Your task to perform on an android device: Open Android settings Image 0: 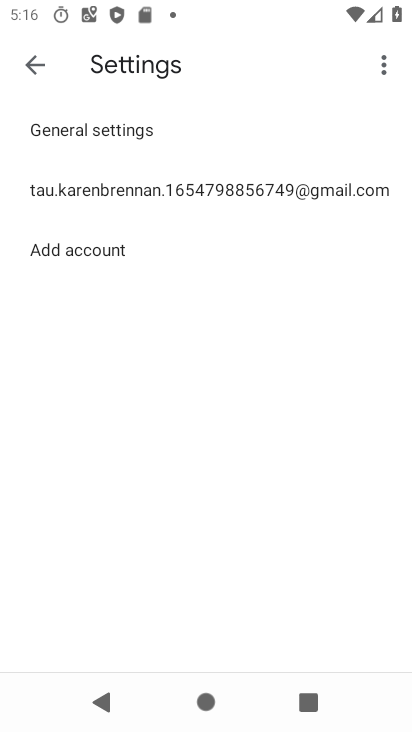
Step 0: press home button
Your task to perform on an android device: Open Android settings Image 1: 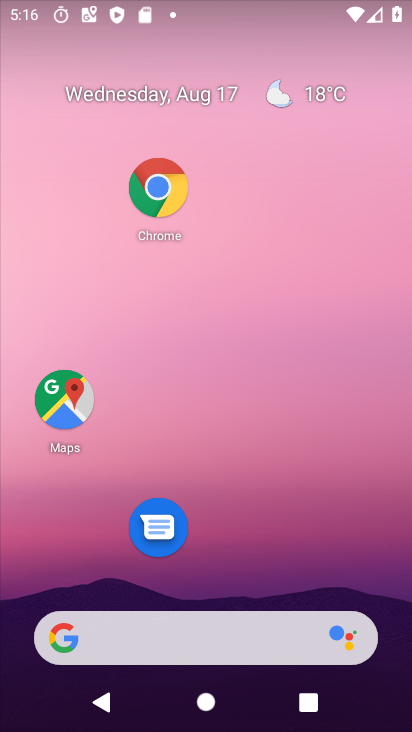
Step 1: drag from (278, 565) to (318, 67)
Your task to perform on an android device: Open Android settings Image 2: 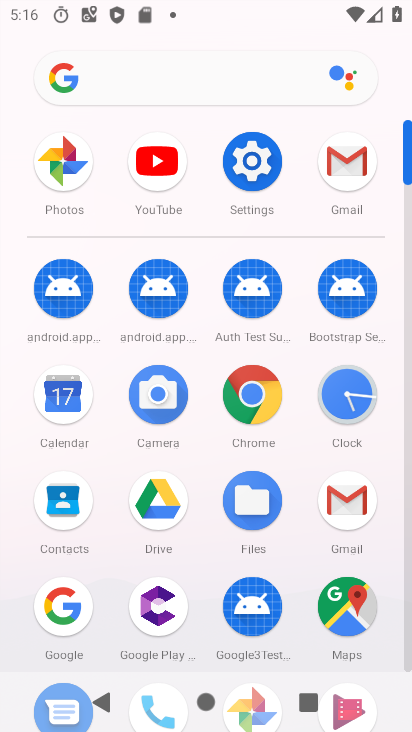
Step 2: click (258, 164)
Your task to perform on an android device: Open Android settings Image 3: 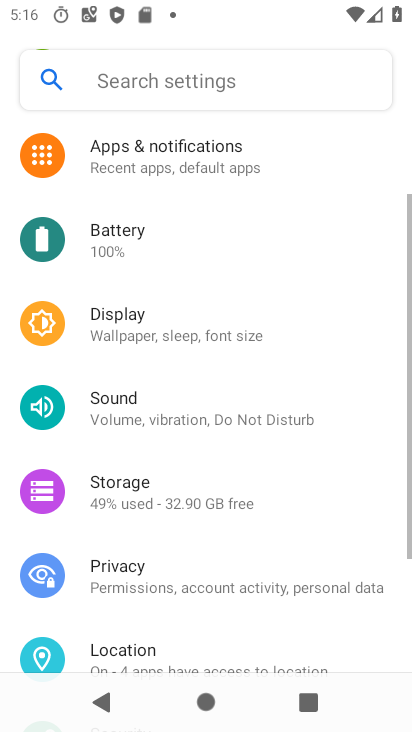
Step 3: task complete